Your task to perform on an android device: toggle airplane mode Image 0: 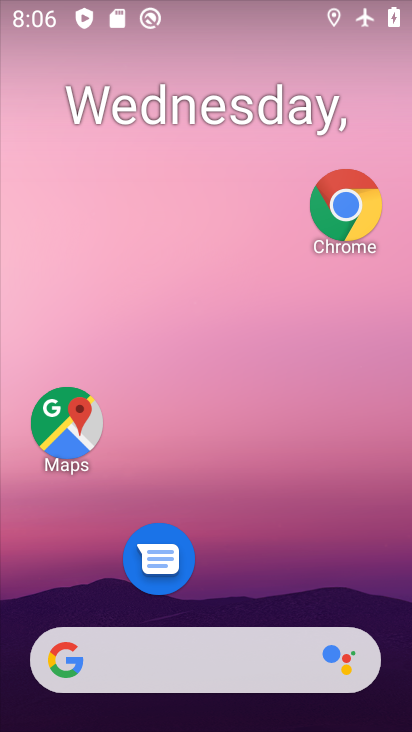
Step 0: drag from (214, 556) to (252, 174)
Your task to perform on an android device: toggle airplane mode Image 1: 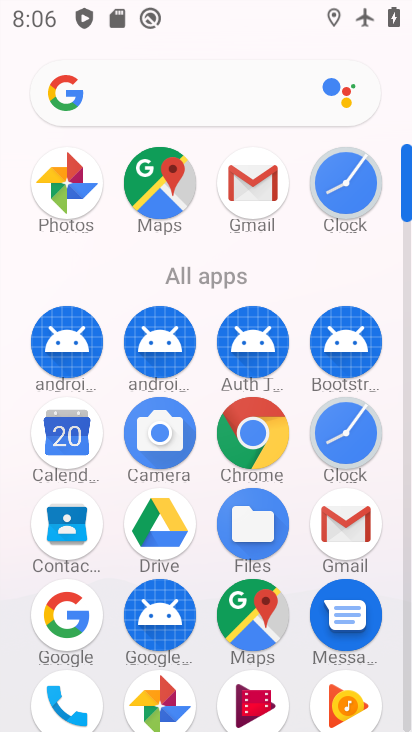
Step 1: drag from (196, 671) to (258, 228)
Your task to perform on an android device: toggle airplane mode Image 2: 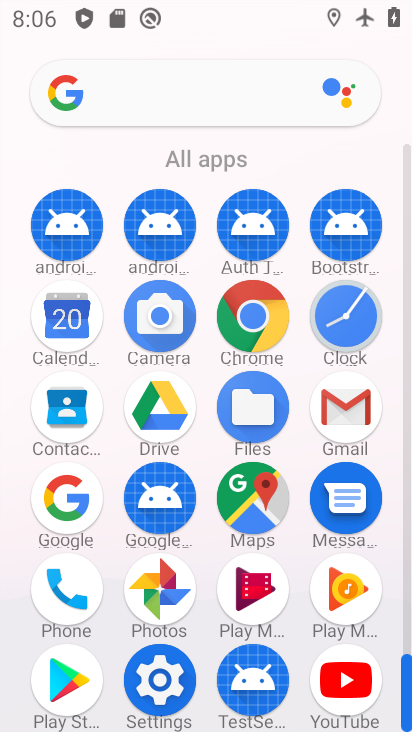
Step 2: click (151, 698)
Your task to perform on an android device: toggle airplane mode Image 3: 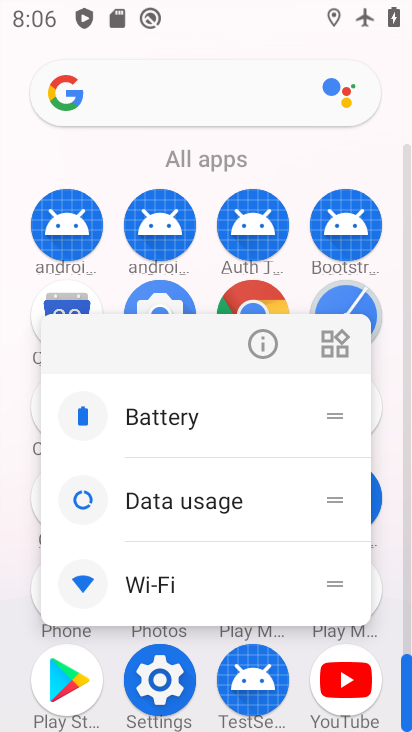
Step 3: click (262, 331)
Your task to perform on an android device: toggle airplane mode Image 4: 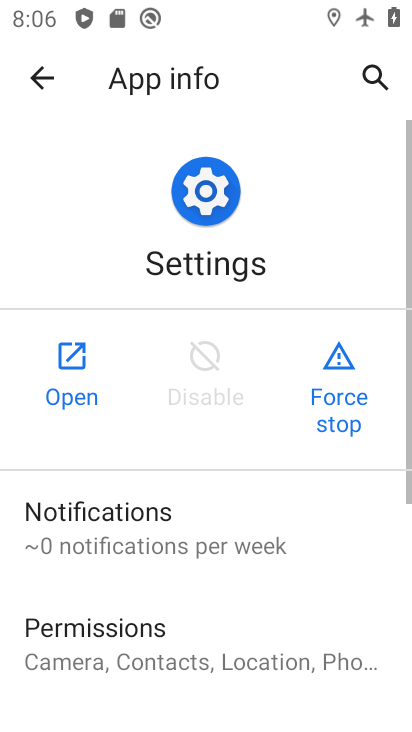
Step 4: click (75, 360)
Your task to perform on an android device: toggle airplane mode Image 5: 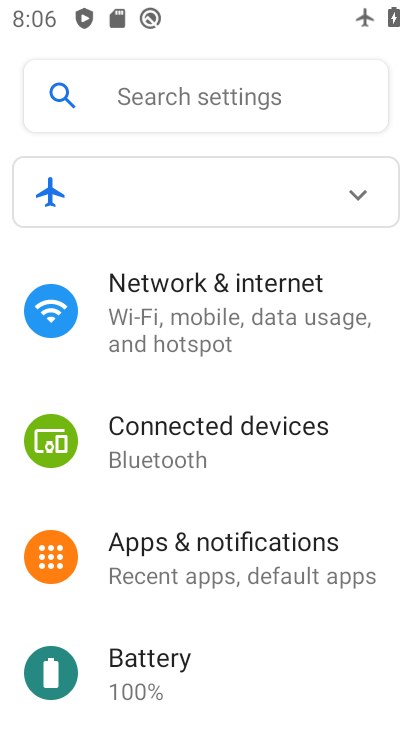
Step 5: click (224, 323)
Your task to perform on an android device: toggle airplane mode Image 6: 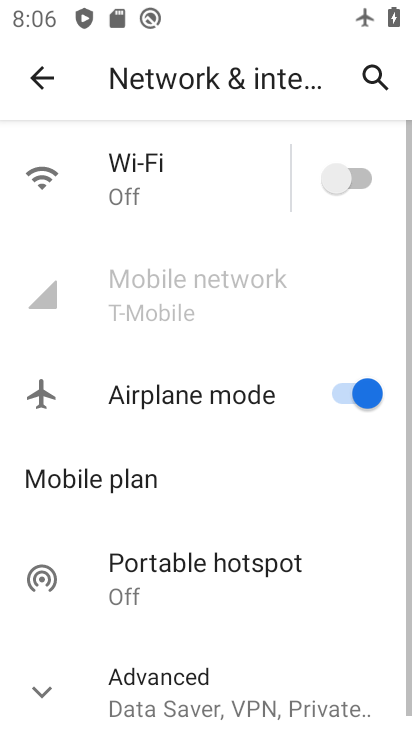
Step 6: click (251, 403)
Your task to perform on an android device: toggle airplane mode Image 7: 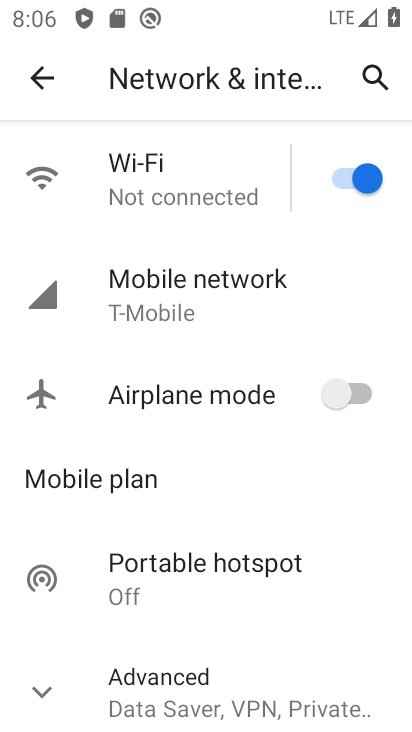
Step 7: task complete